Your task to perform on an android device: turn vacation reply on in the gmail app Image 0: 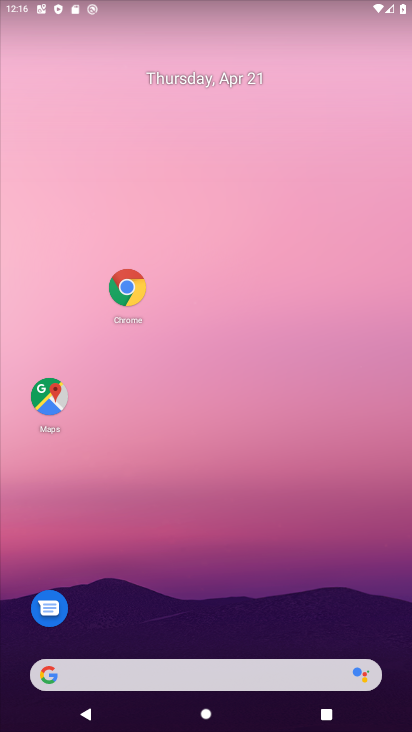
Step 0: drag from (218, 397) to (252, 82)
Your task to perform on an android device: turn vacation reply on in the gmail app Image 1: 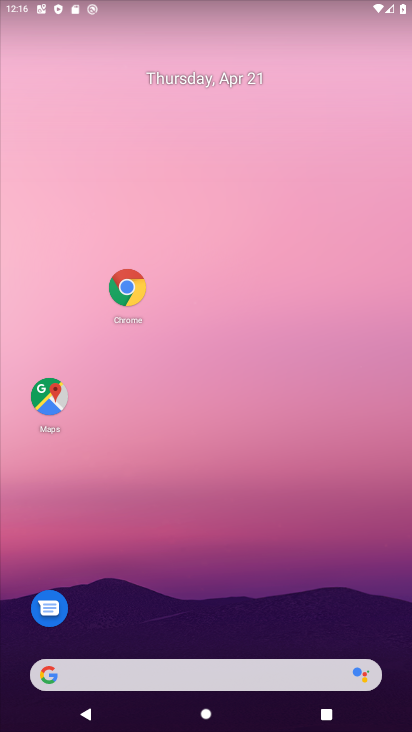
Step 1: drag from (248, 366) to (241, 46)
Your task to perform on an android device: turn vacation reply on in the gmail app Image 2: 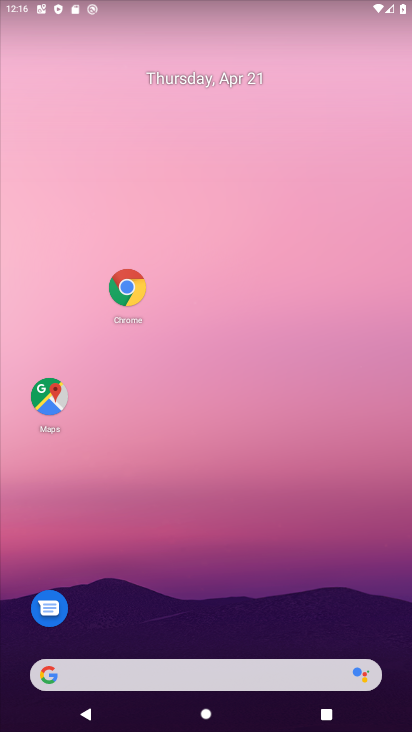
Step 2: drag from (249, 349) to (189, 8)
Your task to perform on an android device: turn vacation reply on in the gmail app Image 3: 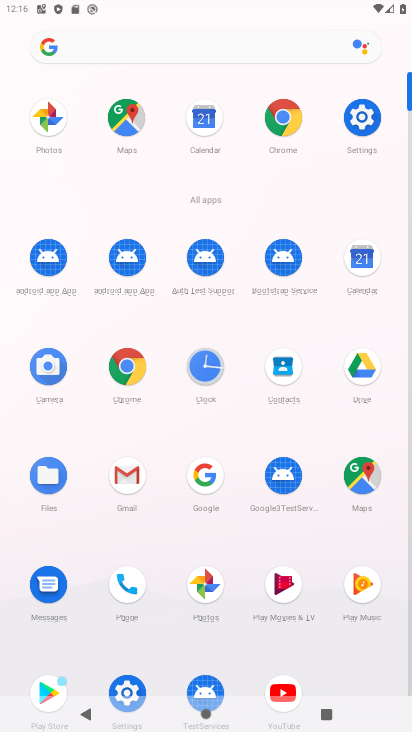
Step 3: click (132, 483)
Your task to perform on an android device: turn vacation reply on in the gmail app Image 4: 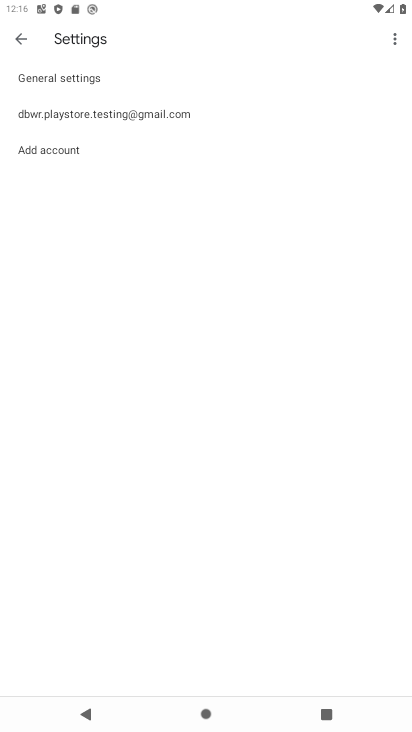
Step 4: click (128, 112)
Your task to perform on an android device: turn vacation reply on in the gmail app Image 5: 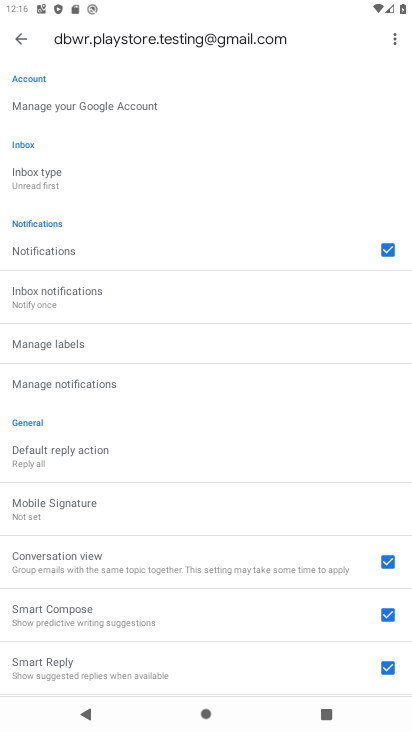
Step 5: drag from (168, 568) to (182, 417)
Your task to perform on an android device: turn vacation reply on in the gmail app Image 6: 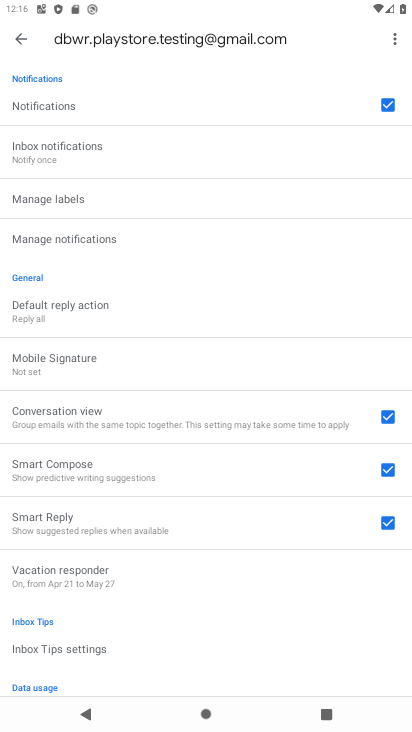
Step 6: click (89, 568)
Your task to perform on an android device: turn vacation reply on in the gmail app Image 7: 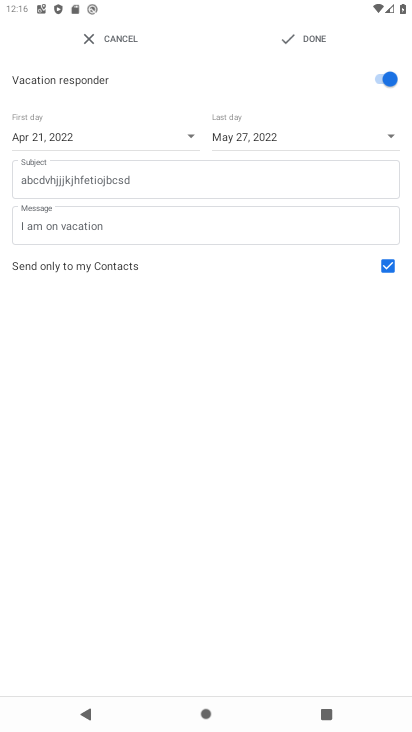
Step 7: task complete